Your task to perform on an android device: install app "Pandora - Music & Podcasts" Image 0: 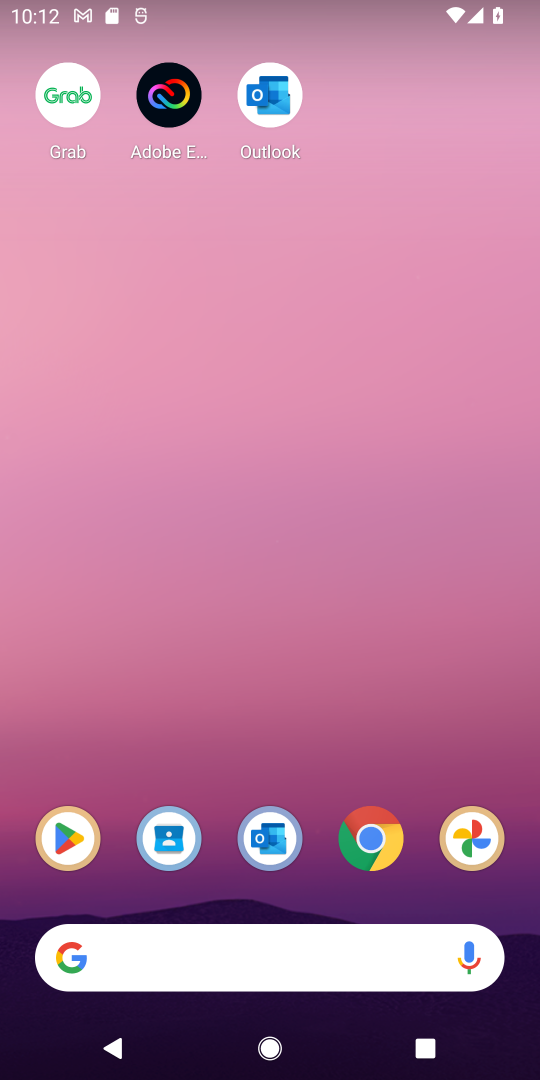
Step 0: click (69, 819)
Your task to perform on an android device: install app "Pandora - Music & Podcasts" Image 1: 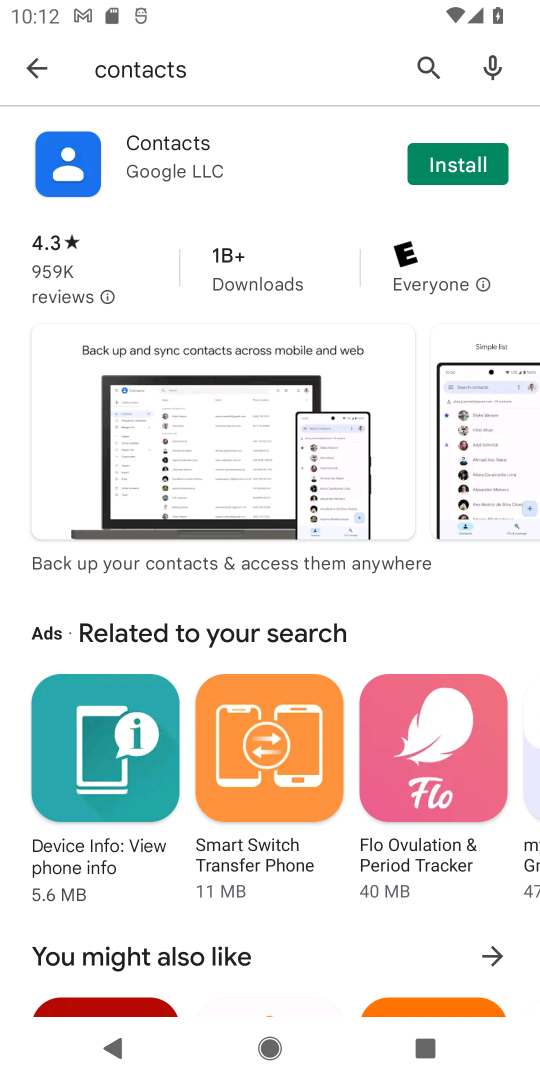
Step 1: click (217, 71)
Your task to perform on an android device: install app "Pandora - Music & Podcasts" Image 2: 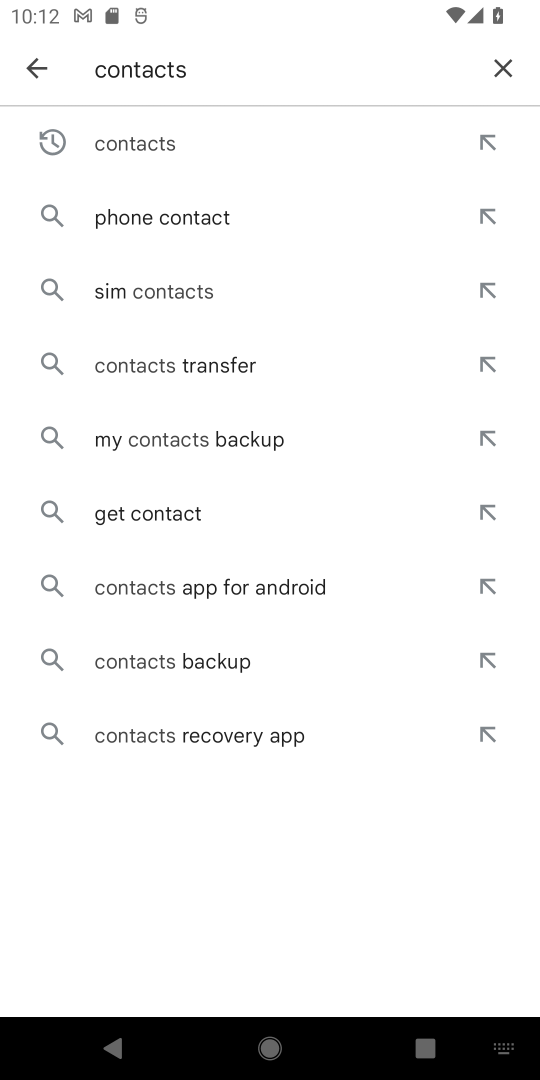
Step 2: click (507, 67)
Your task to perform on an android device: install app "Pandora - Music & Podcasts" Image 3: 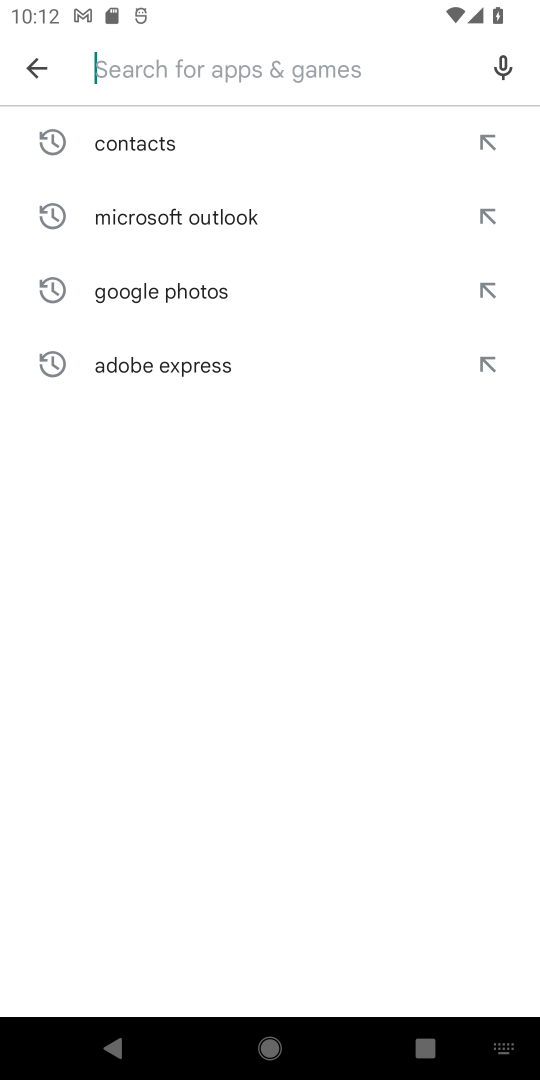
Step 3: type "Pandora"
Your task to perform on an android device: install app "Pandora - Music & Podcasts" Image 4: 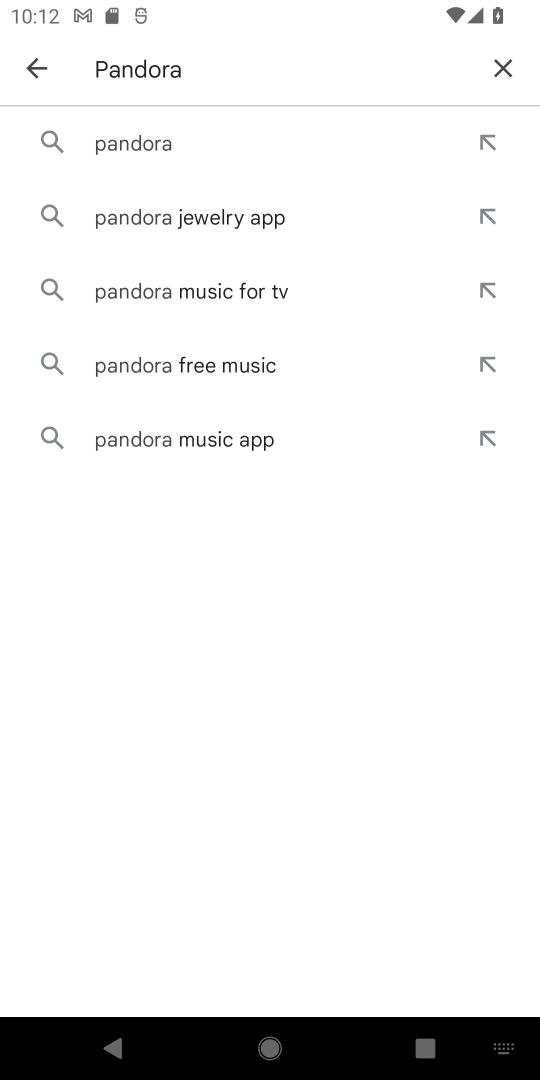
Step 4: click (168, 156)
Your task to perform on an android device: install app "Pandora - Music & Podcasts" Image 5: 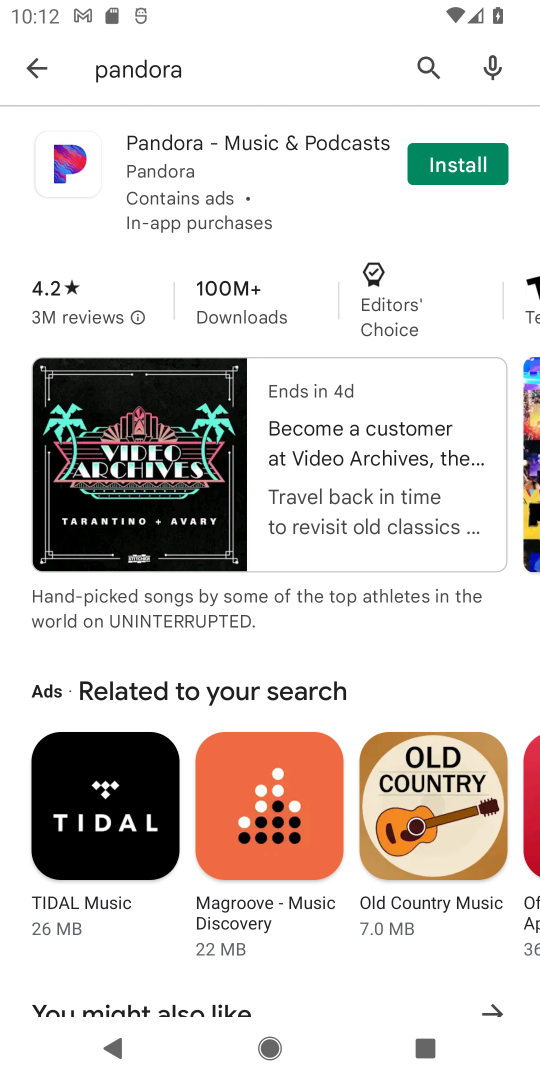
Step 5: click (470, 166)
Your task to perform on an android device: install app "Pandora - Music & Podcasts" Image 6: 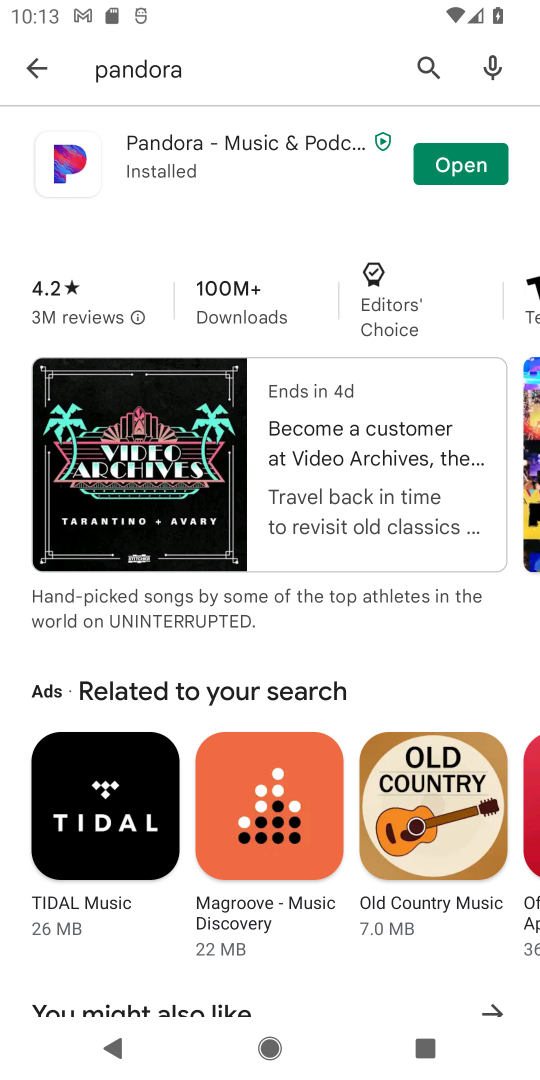
Step 6: task complete